Your task to perform on an android device: change your default location settings in chrome Image 0: 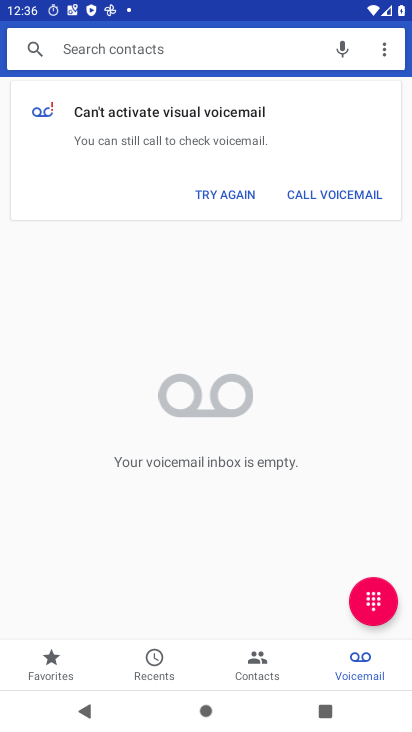
Step 0: press home button
Your task to perform on an android device: change your default location settings in chrome Image 1: 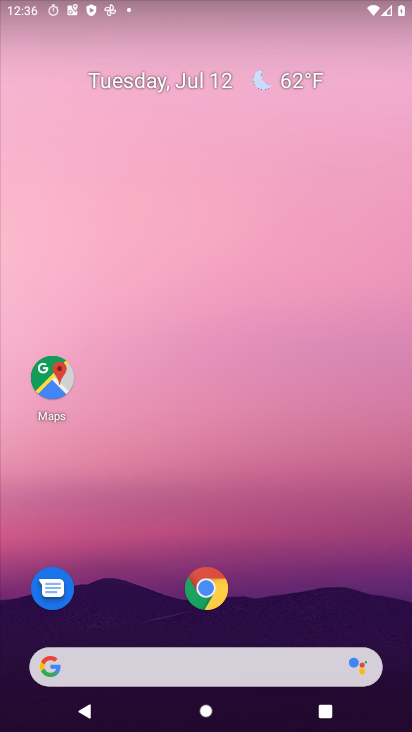
Step 1: drag from (205, 502) to (206, 166)
Your task to perform on an android device: change your default location settings in chrome Image 2: 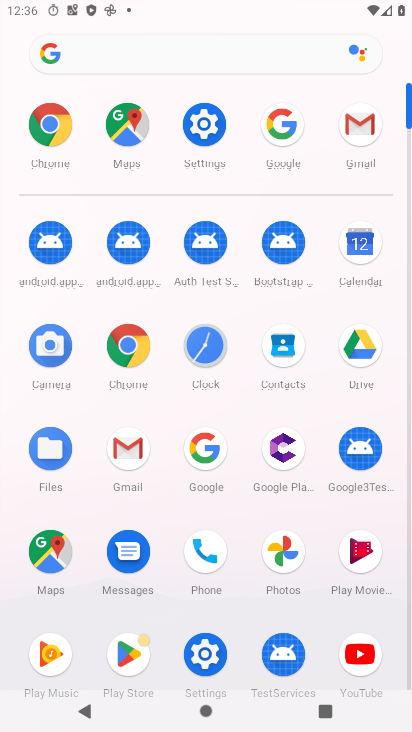
Step 2: click (46, 123)
Your task to perform on an android device: change your default location settings in chrome Image 3: 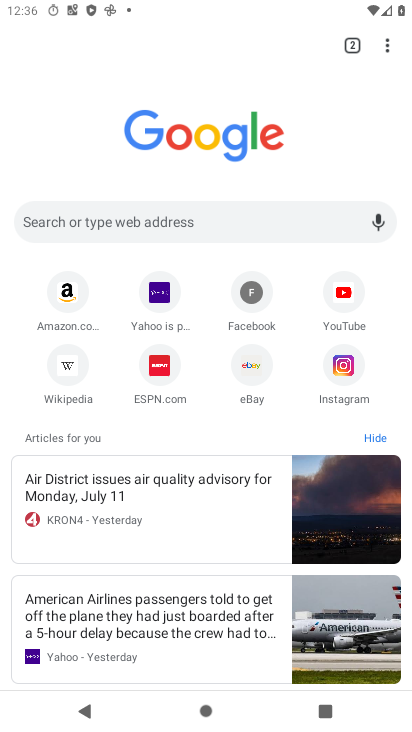
Step 3: click (382, 45)
Your task to perform on an android device: change your default location settings in chrome Image 4: 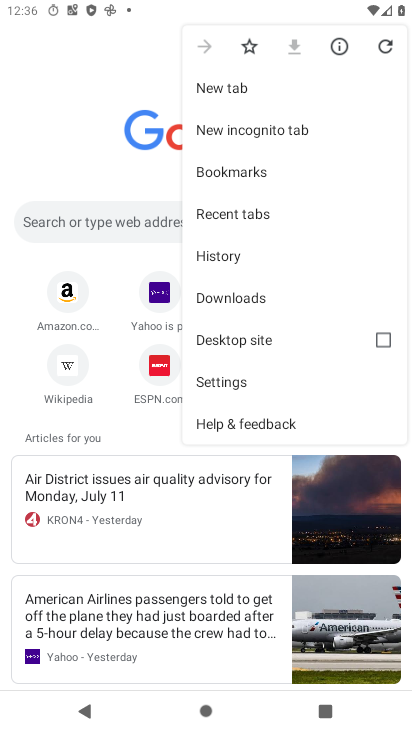
Step 4: click (237, 383)
Your task to perform on an android device: change your default location settings in chrome Image 5: 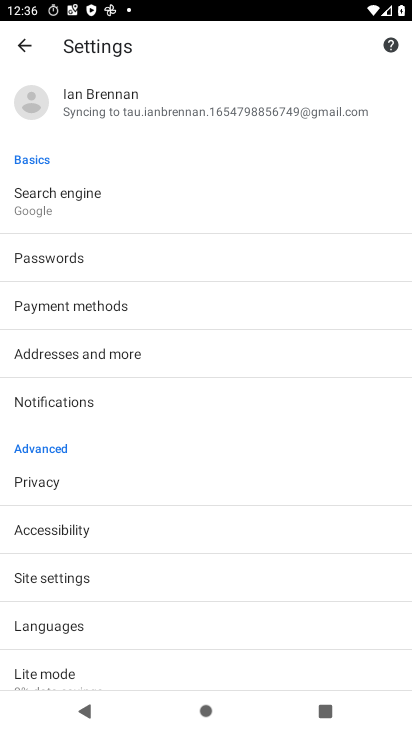
Step 5: click (42, 576)
Your task to perform on an android device: change your default location settings in chrome Image 6: 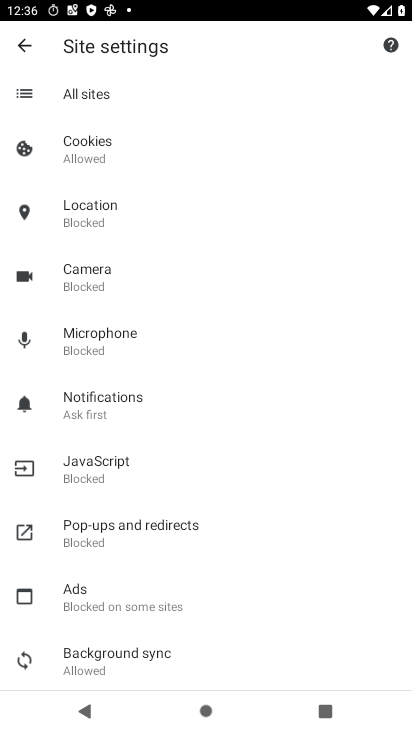
Step 6: click (115, 209)
Your task to perform on an android device: change your default location settings in chrome Image 7: 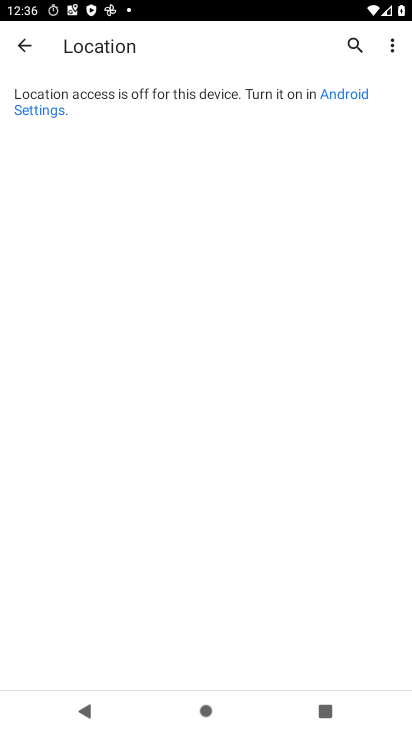
Step 7: click (347, 84)
Your task to perform on an android device: change your default location settings in chrome Image 8: 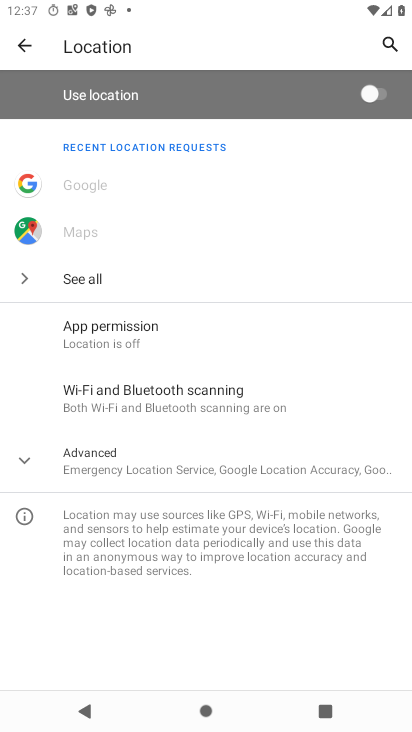
Step 8: click (385, 94)
Your task to perform on an android device: change your default location settings in chrome Image 9: 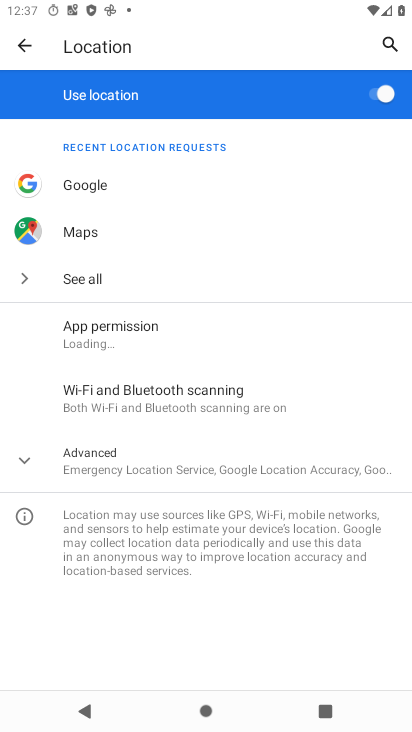
Step 9: task complete